Your task to perform on an android device: turn off picture-in-picture Image 0: 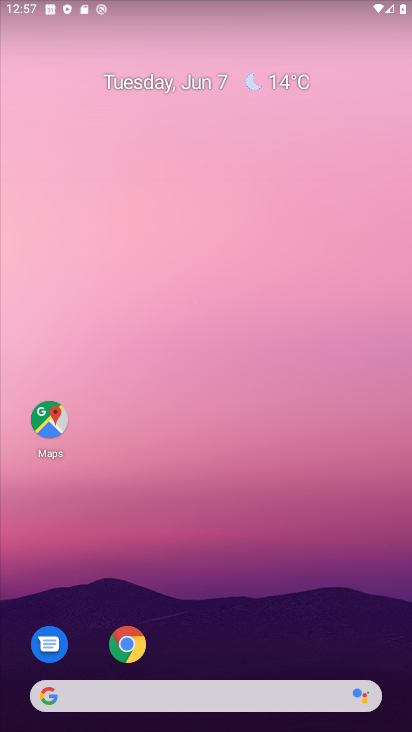
Step 0: click (119, 649)
Your task to perform on an android device: turn off picture-in-picture Image 1: 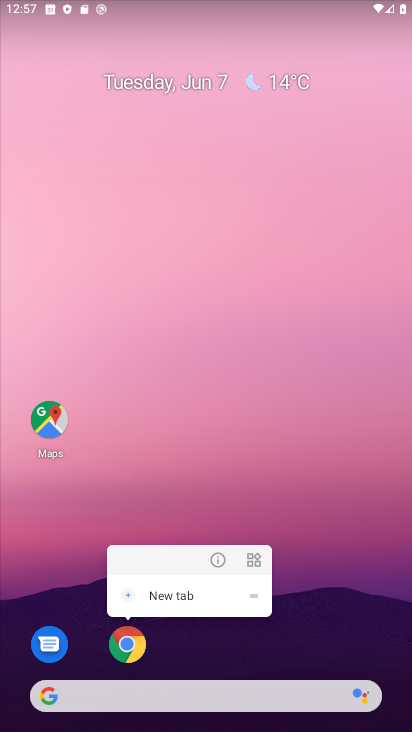
Step 1: click (214, 554)
Your task to perform on an android device: turn off picture-in-picture Image 2: 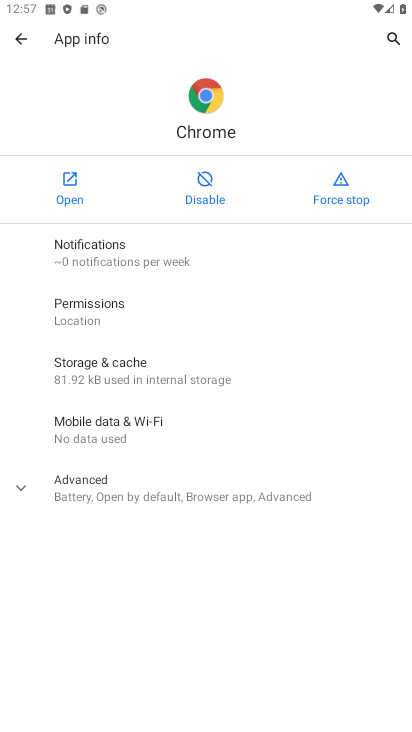
Step 2: click (137, 487)
Your task to perform on an android device: turn off picture-in-picture Image 3: 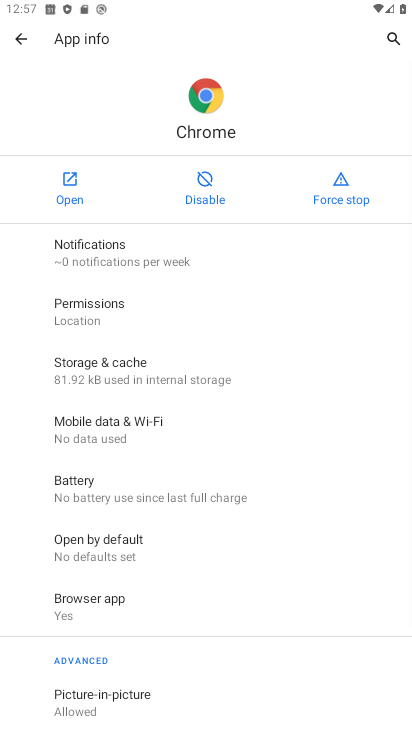
Step 3: click (137, 707)
Your task to perform on an android device: turn off picture-in-picture Image 4: 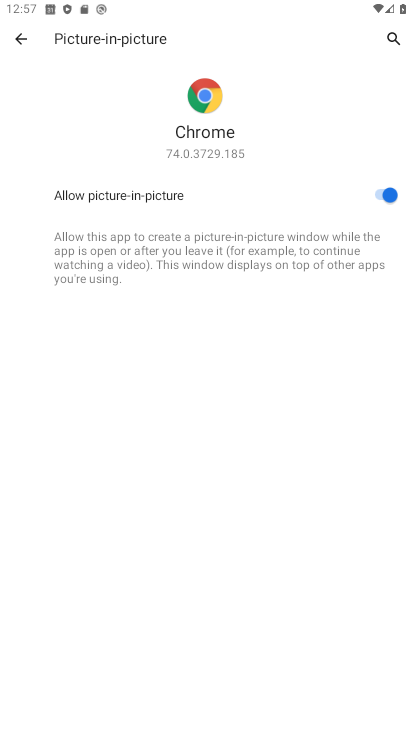
Step 4: click (382, 197)
Your task to perform on an android device: turn off picture-in-picture Image 5: 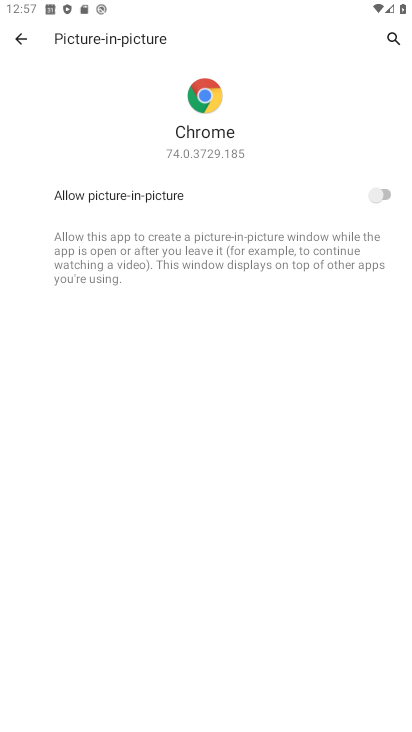
Step 5: task complete